Your task to perform on an android device: add a contact Image 0: 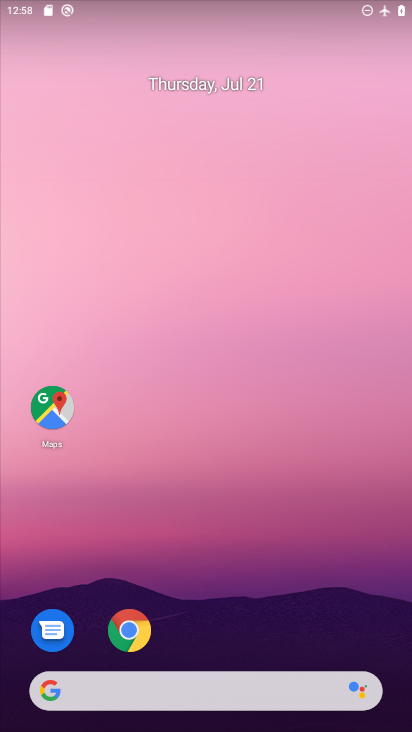
Step 0: drag from (388, 698) to (338, 120)
Your task to perform on an android device: add a contact Image 1: 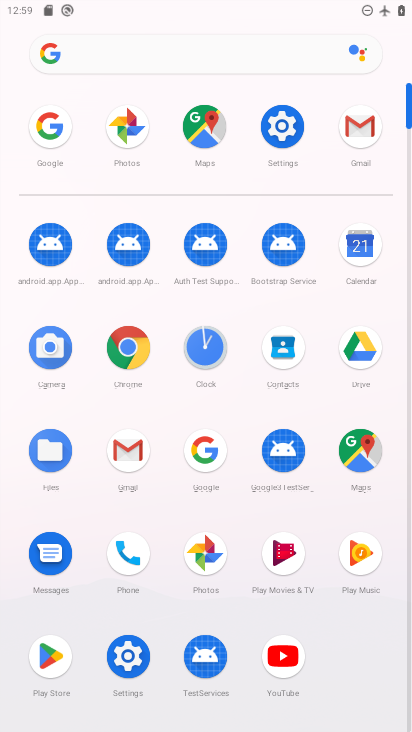
Step 1: click (288, 349)
Your task to perform on an android device: add a contact Image 2: 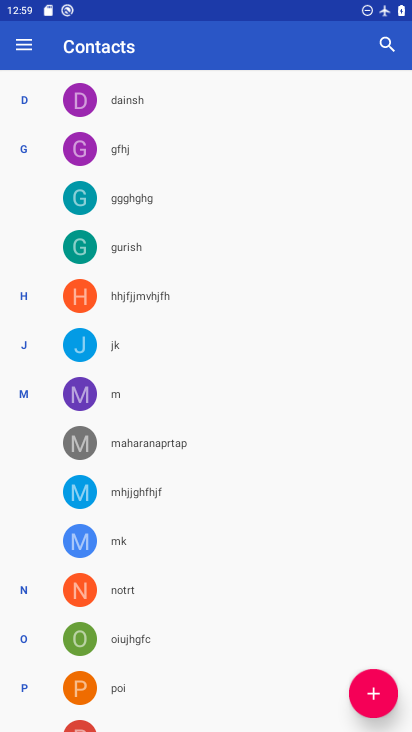
Step 2: click (356, 695)
Your task to perform on an android device: add a contact Image 3: 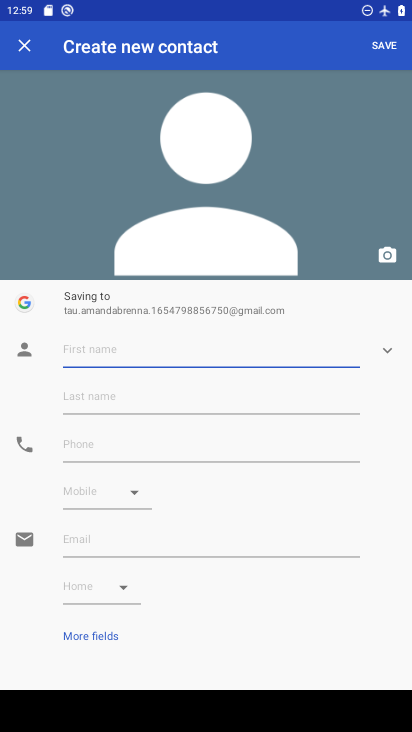
Step 3: type "bdffdf dfbdb "
Your task to perform on an android device: add a contact Image 4: 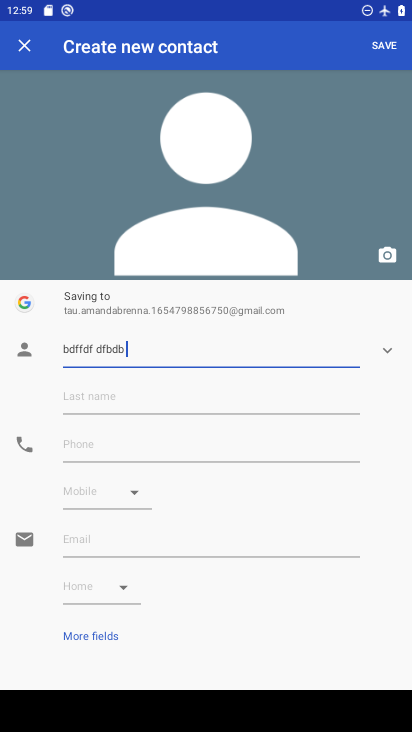
Step 4: click (224, 392)
Your task to perform on an android device: add a contact Image 5: 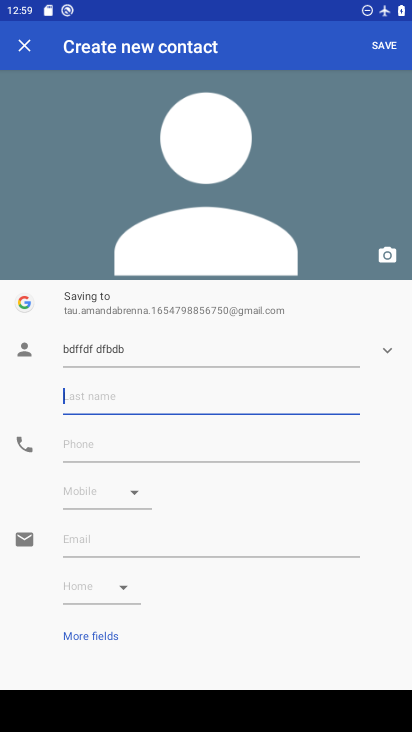
Step 5: type "bbbgbbbf"
Your task to perform on an android device: add a contact Image 6: 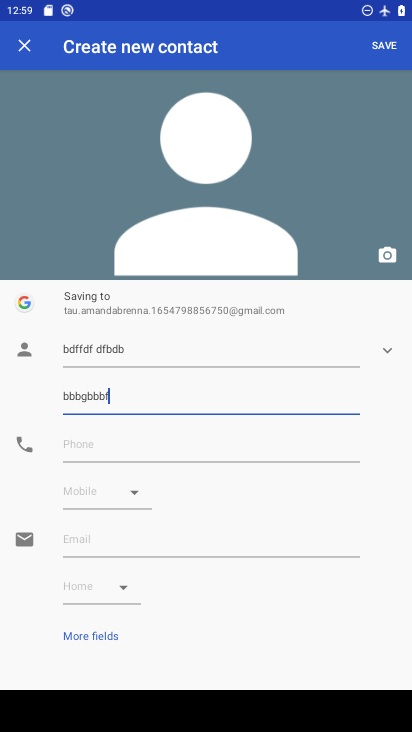
Step 6: click (168, 452)
Your task to perform on an android device: add a contact Image 7: 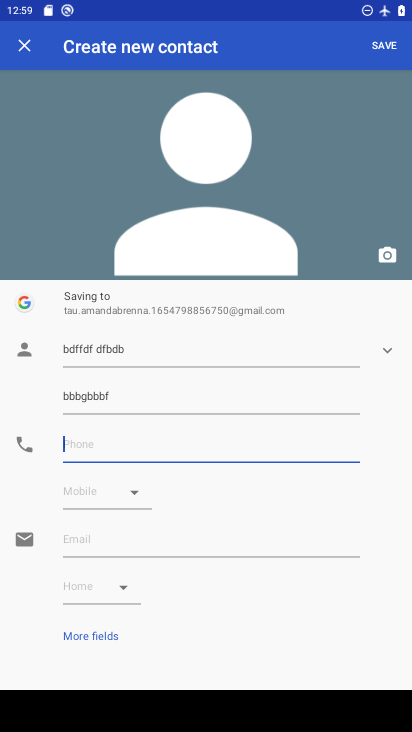
Step 7: type "452743442443344334"
Your task to perform on an android device: add a contact Image 8: 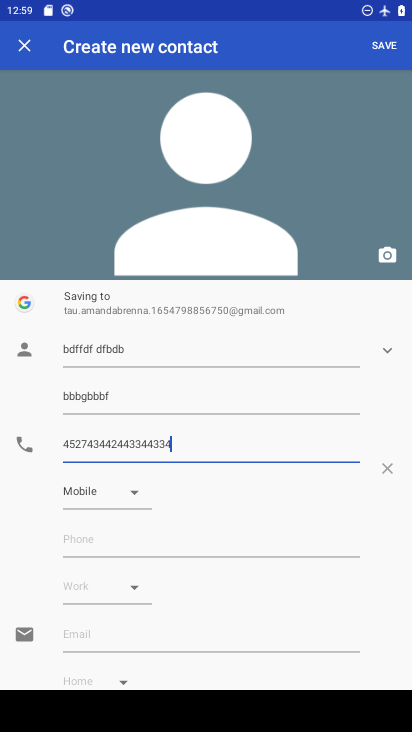
Step 8: click (398, 45)
Your task to perform on an android device: add a contact Image 9: 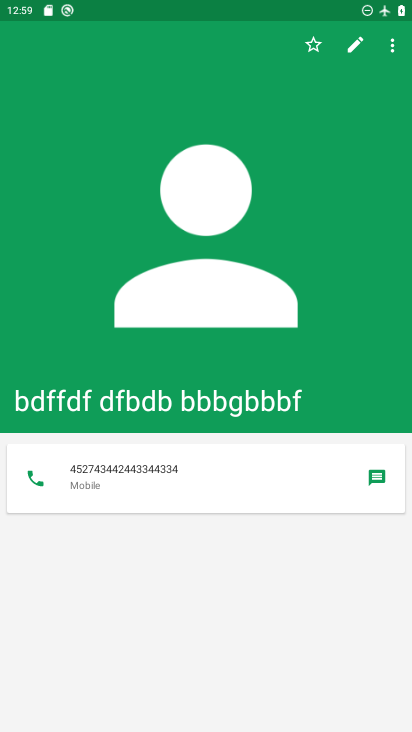
Step 9: task complete